Your task to perform on an android device: Open calendar and show me the fourth week of next month Image 0: 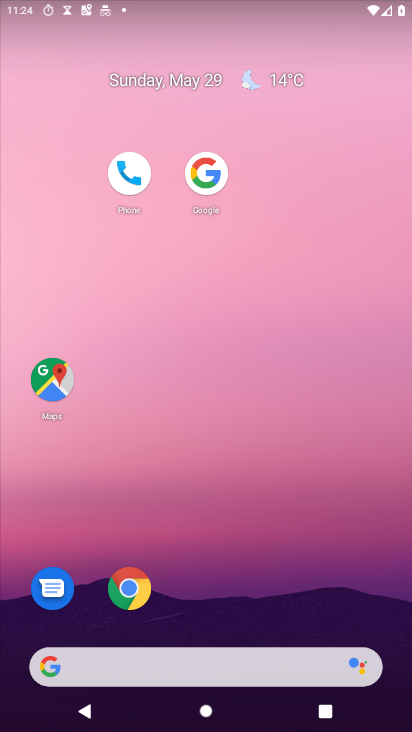
Step 0: drag from (285, 556) to (327, 111)
Your task to perform on an android device: Open calendar and show me the fourth week of next month Image 1: 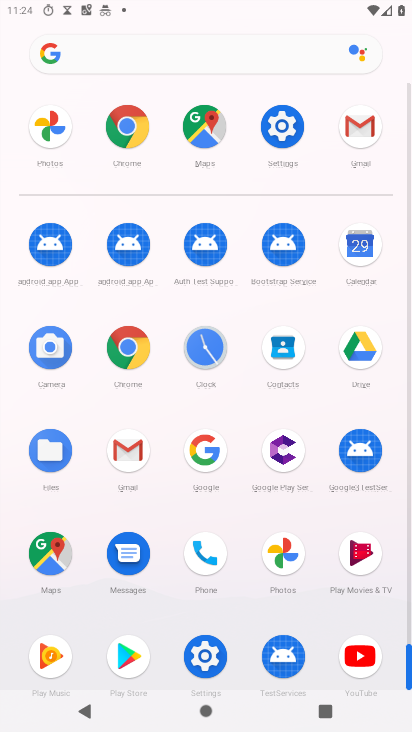
Step 1: click (357, 248)
Your task to perform on an android device: Open calendar and show me the fourth week of next month Image 2: 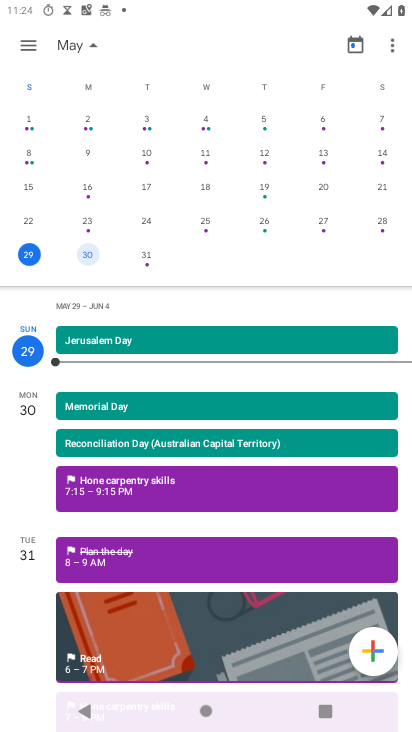
Step 2: drag from (195, 151) to (152, 226)
Your task to perform on an android device: Open calendar and show me the fourth week of next month Image 3: 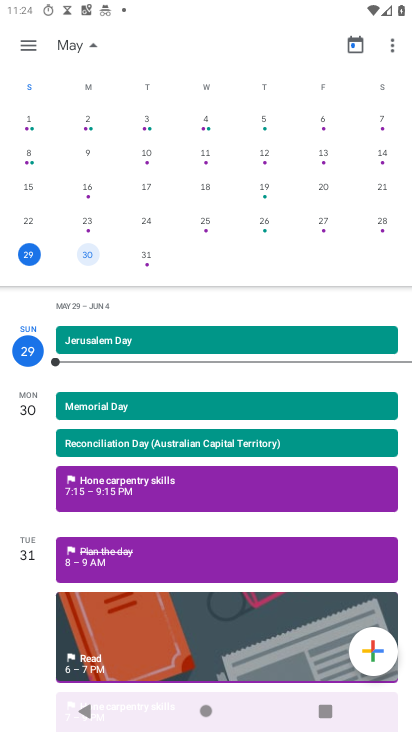
Step 3: drag from (294, 184) to (145, 182)
Your task to perform on an android device: Open calendar and show me the fourth week of next month Image 4: 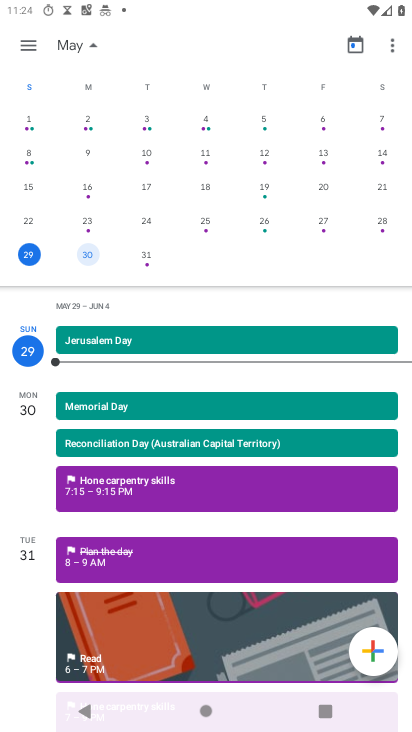
Step 4: drag from (281, 194) to (186, 194)
Your task to perform on an android device: Open calendar and show me the fourth week of next month Image 5: 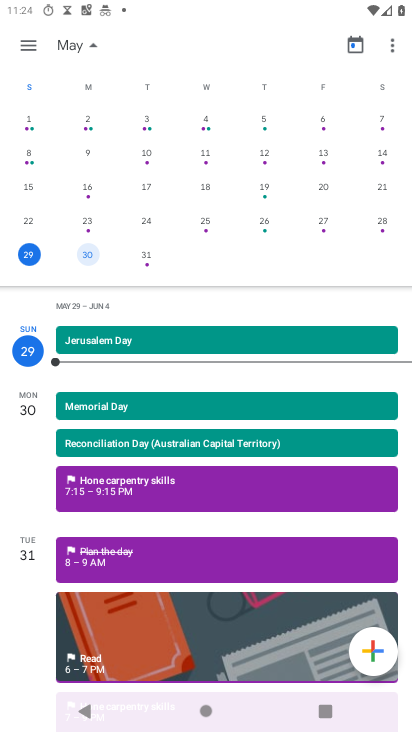
Step 5: drag from (22, 241) to (0, 117)
Your task to perform on an android device: Open calendar and show me the fourth week of next month Image 6: 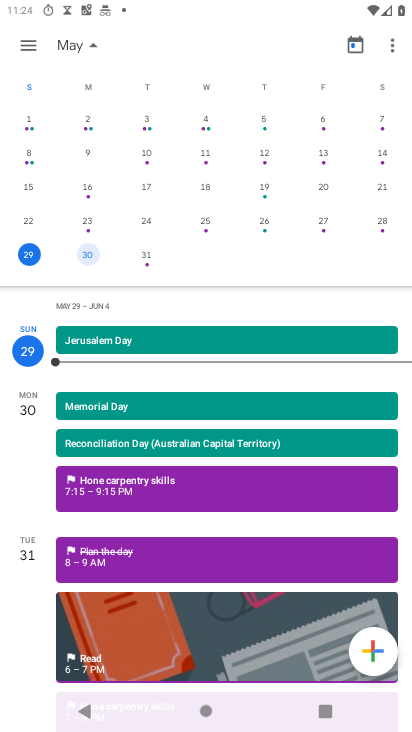
Step 6: drag from (328, 132) to (12, 209)
Your task to perform on an android device: Open calendar and show me the fourth week of next month Image 7: 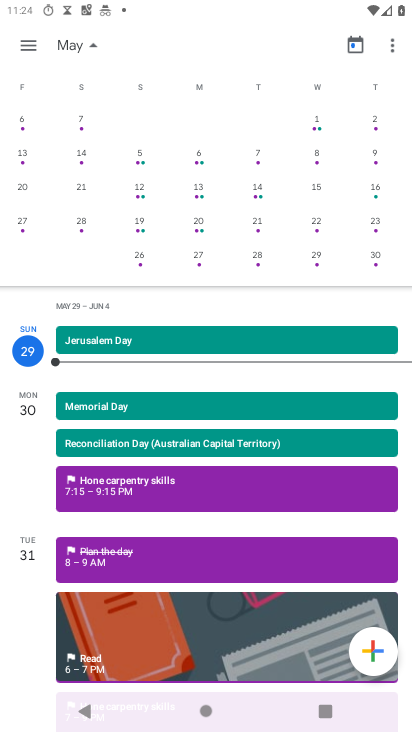
Step 7: drag from (193, 188) to (9, 224)
Your task to perform on an android device: Open calendar and show me the fourth week of next month Image 8: 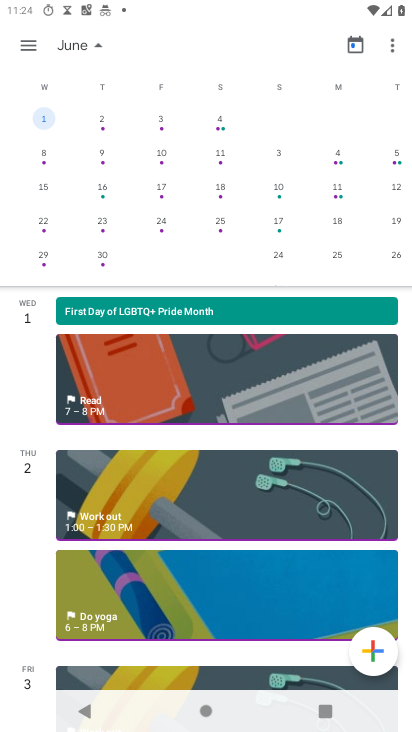
Step 8: drag from (176, 172) to (58, 200)
Your task to perform on an android device: Open calendar and show me the fourth week of next month Image 9: 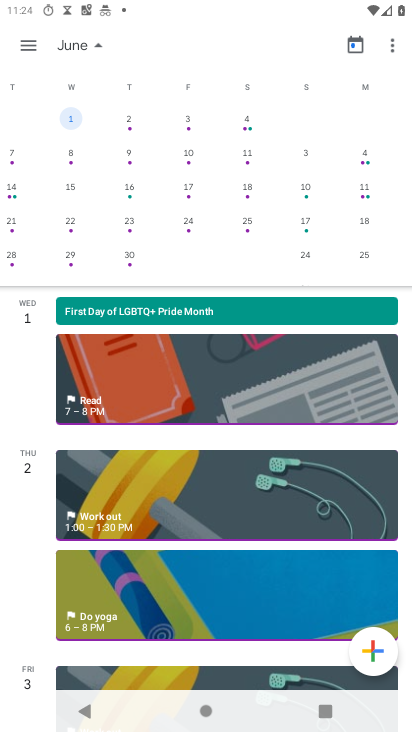
Step 9: drag from (170, 177) to (25, 252)
Your task to perform on an android device: Open calendar and show me the fourth week of next month Image 10: 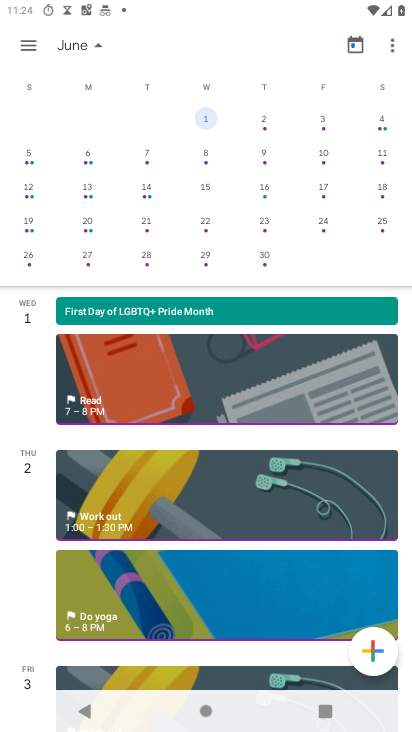
Step 10: click (204, 223)
Your task to perform on an android device: Open calendar and show me the fourth week of next month Image 11: 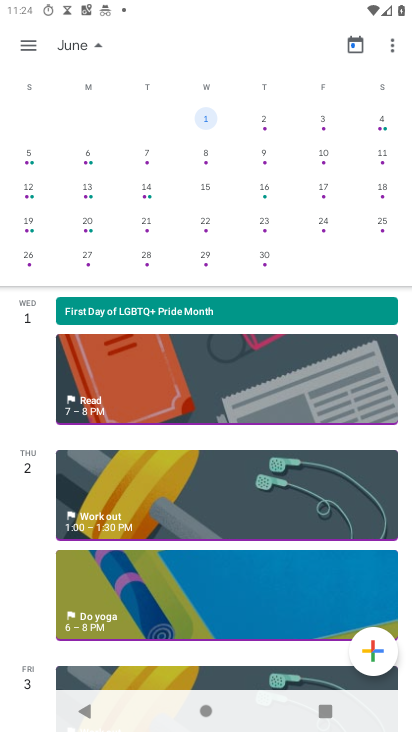
Step 11: click (209, 217)
Your task to perform on an android device: Open calendar and show me the fourth week of next month Image 12: 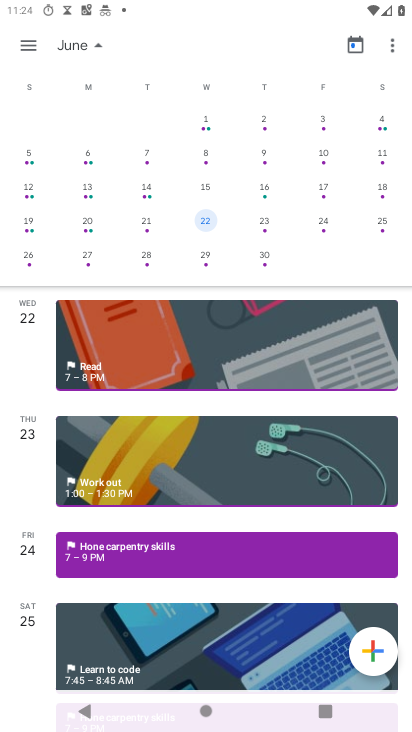
Step 12: task complete